Your task to perform on an android device: Open network settings Image 0: 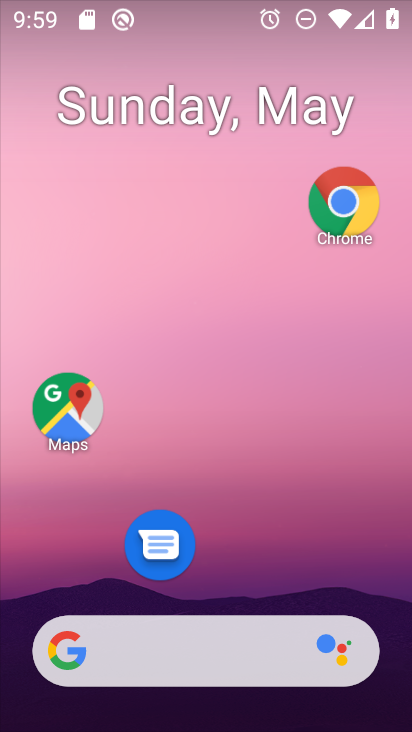
Step 0: drag from (283, 567) to (271, 42)
Your task to perform on an android device: Open network settings Image 1: 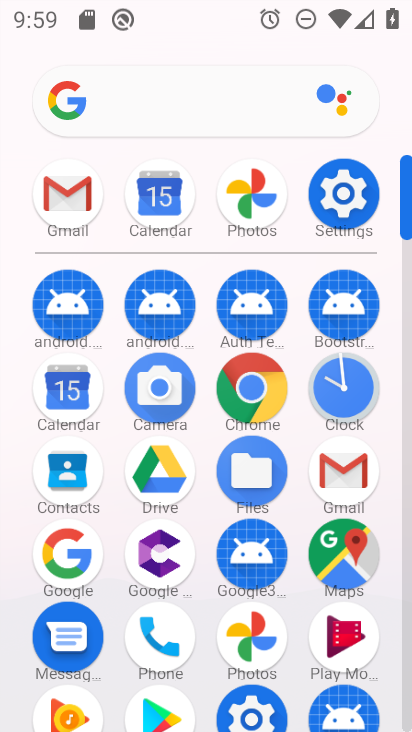
Step 1: click (335, 181)
Your task to perform on an android device: Open network settings Image 2: 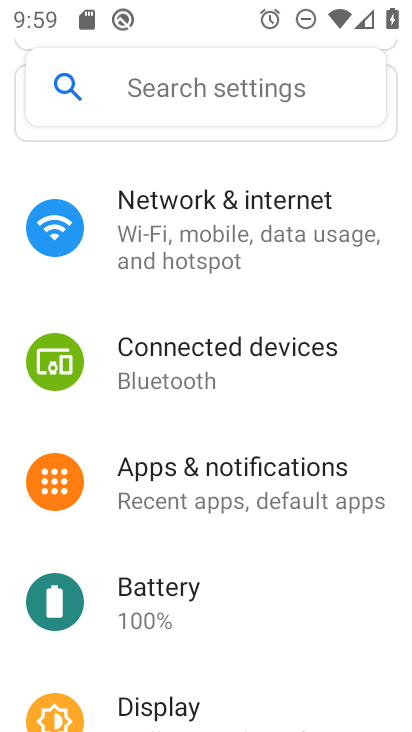
Step 2: click (190, 236)
Your task to perform on an android device: Open network settings Image 3: 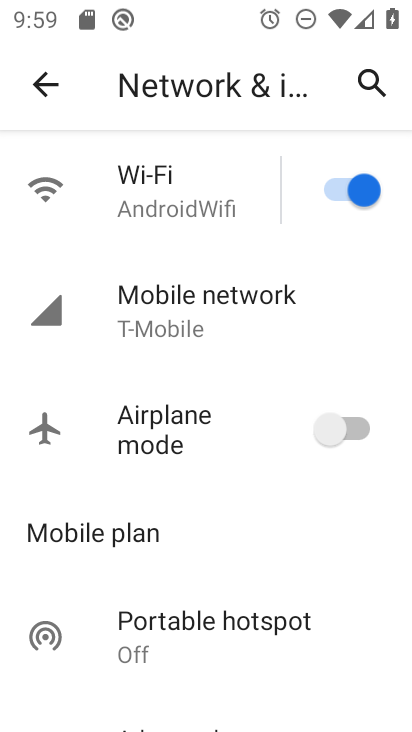
Step 3: click (204, 311)
Your task to perform on an android device: Open network settings Image 4: 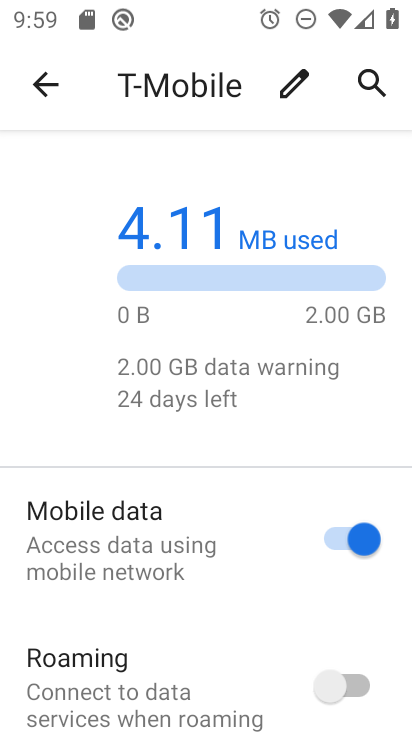
Step 4: task complete